Your task to perform on an android device: change timer sound Image 0: 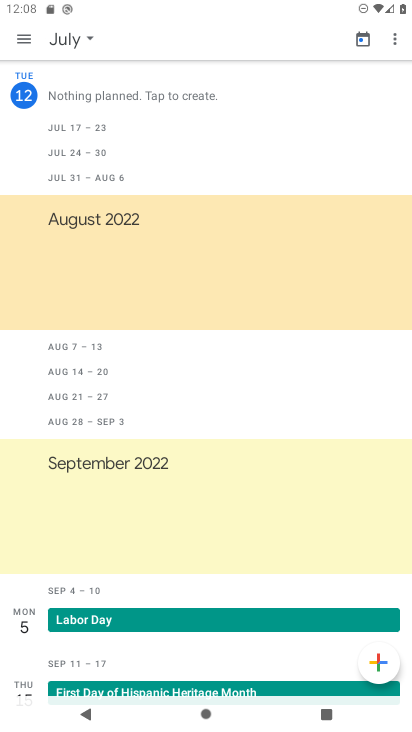
Step 0: press home button
Your task to perform on an android device: change timer sound Image 1: 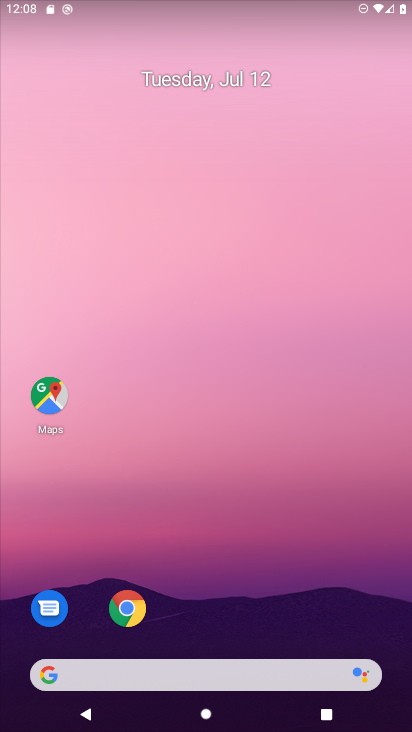
Step 1: drag from (196, 638) to (186, 35)
Your task to perform on an android device: change timer sound Image 2: 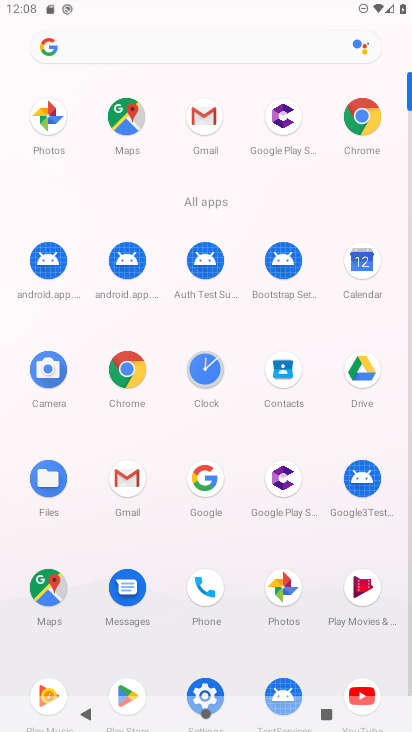
Step 2: click (195, 372)
Your task to perform on an android device: change timer sound Image 3: 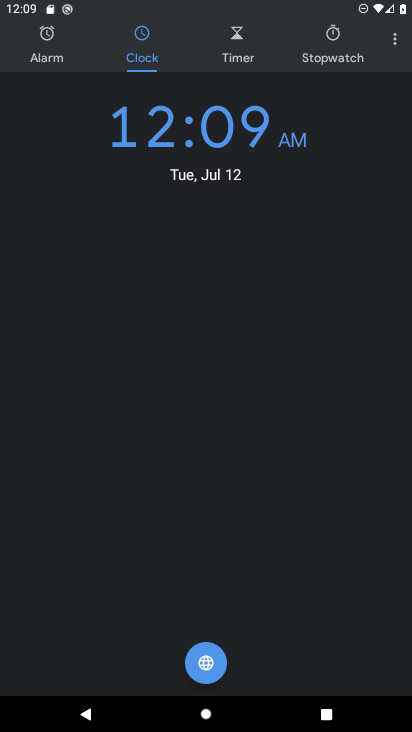
Step 3: click (389, 39)
Your task to perform on an android device: change timer sound Image 4: 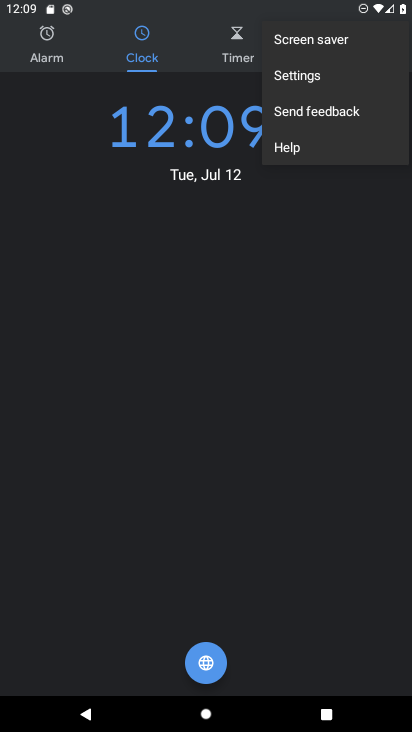
Step 4: click (320, 79)
Your task to perform on an android device: change timer sound Image 5: 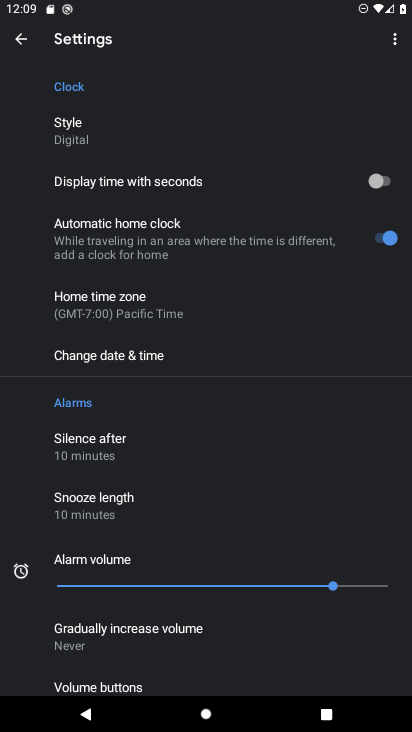
Step 5: drag from (137, 628) to (96, 251)
Your task to perform on an android device: change timer sound Image 6: 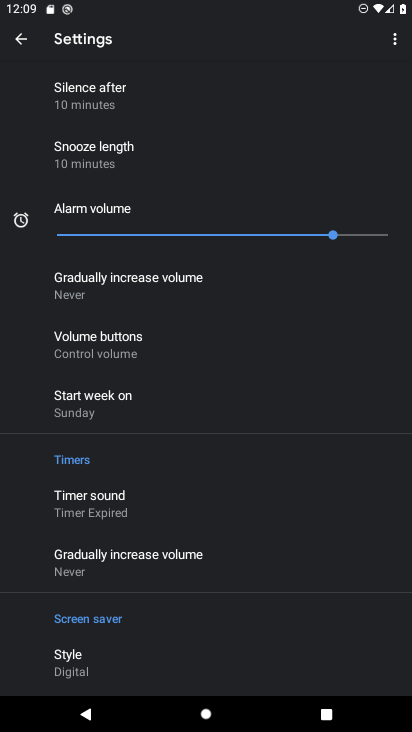
Step 6: click (39, 506)
Your task to perform on an android device: change timer sound Image 7: 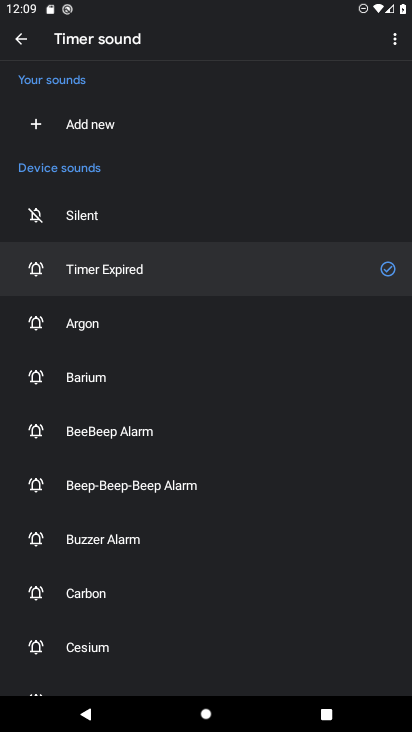
Step 7: click (82, 339)
Your task to perform on an android device: change timer sound Image 8: 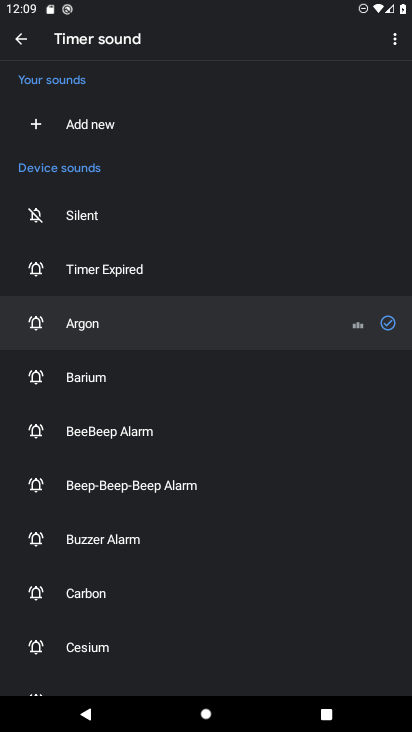
Step 8: task complete